Your task to perform on an android device: Open notification settings Image 0: 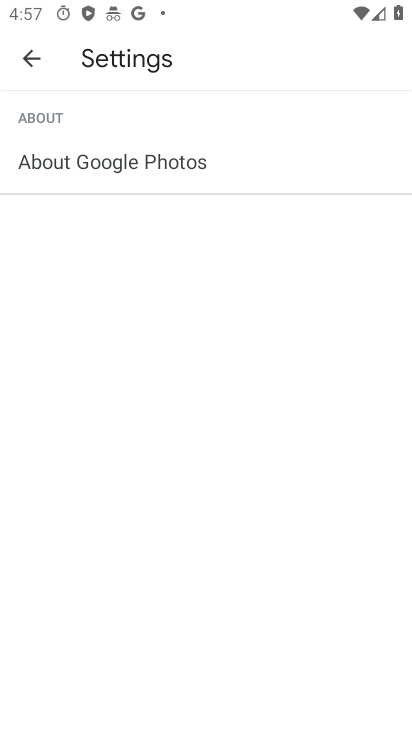
Step 0: press home button
Your task to perform on an android device: Open notification settings Image 1: 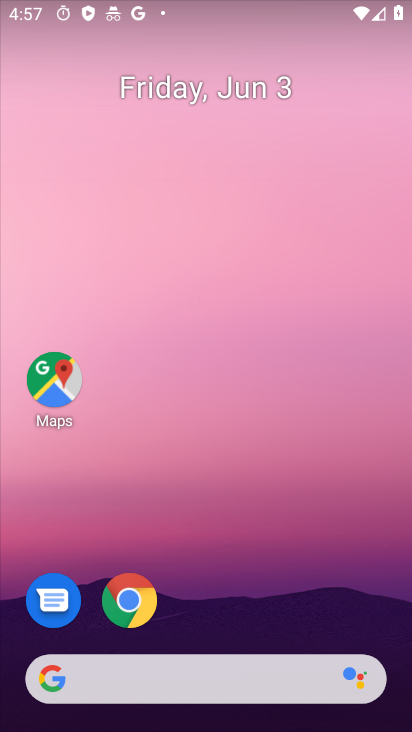
Step 1: drag from (386, 687) to (317, 89)
Your task to perform on an android device: Open notification settings Image 2: 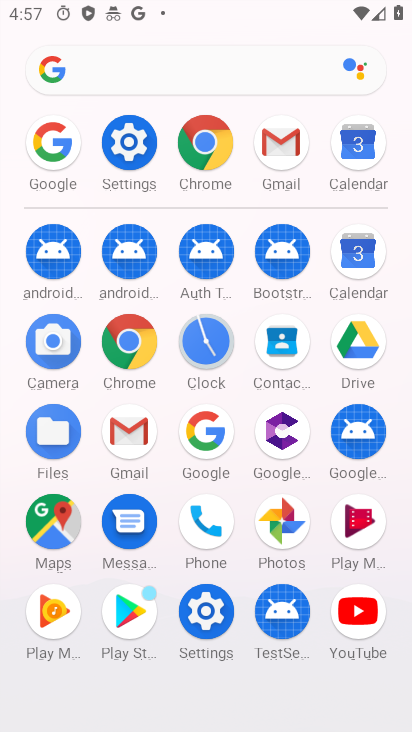
Step 2: click (136, 140)
Your task to perform on an android device: Open notification settings Image 3: 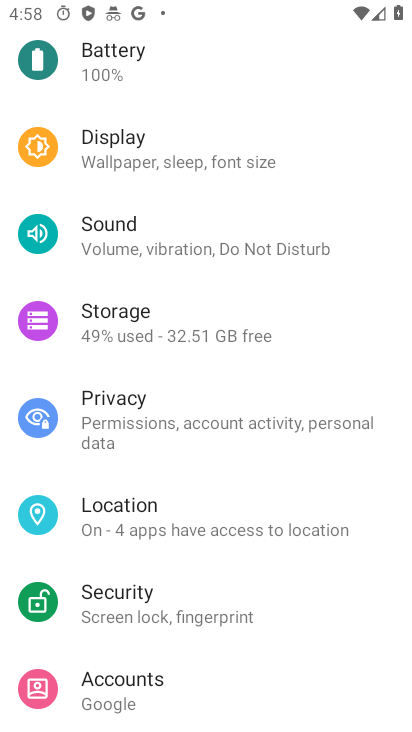
Step 3: drag from (274, 111) to (258, 568)
Your task to perform on an android device: Open notification settings Image 4: 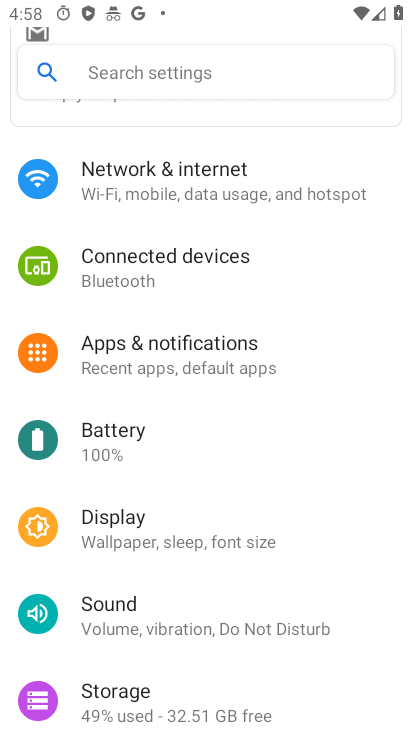
Step 4: drag from (299, 296) to (311, 647)
Your task to perform on an android device: Open notification settings Image 5: 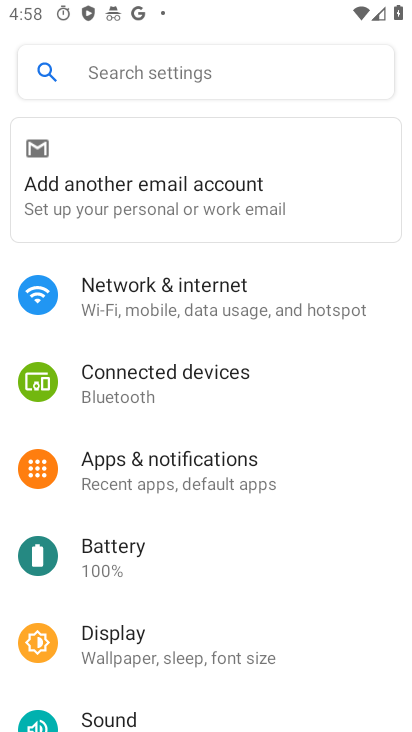
Step 5: drag from (297, 639) to (290, 286)
Your task to perform on an android device: Open notification settings Image 6: 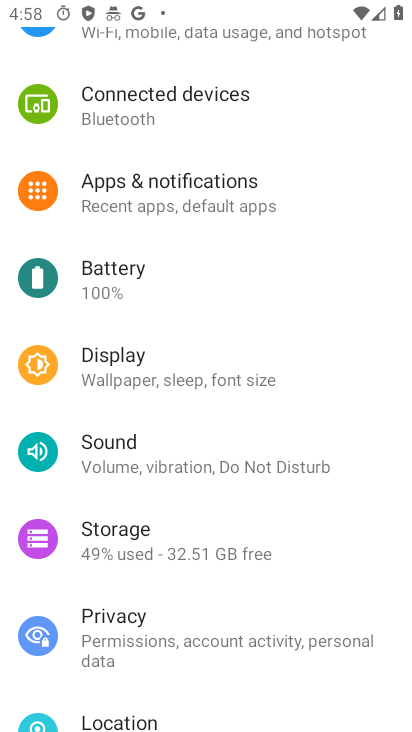
Step 6: drag from (276, 655) to (227, 230)
Your task to perform on an android device: Open notification settings Image 7: 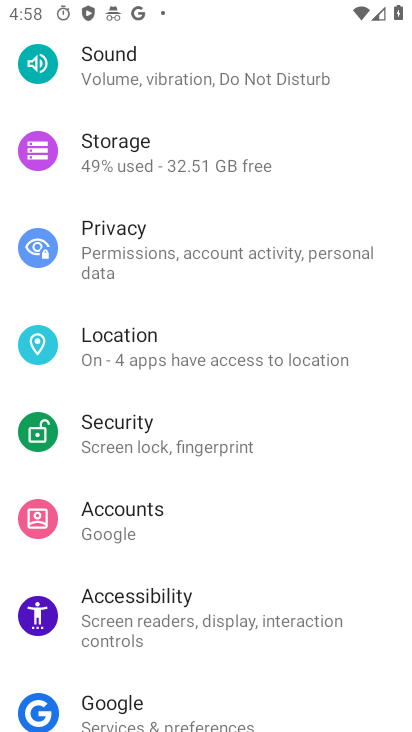
Step 7: drag from (240, 602) to (206, 285)
Your task to perform on an android device: Open notification settings Image 8: 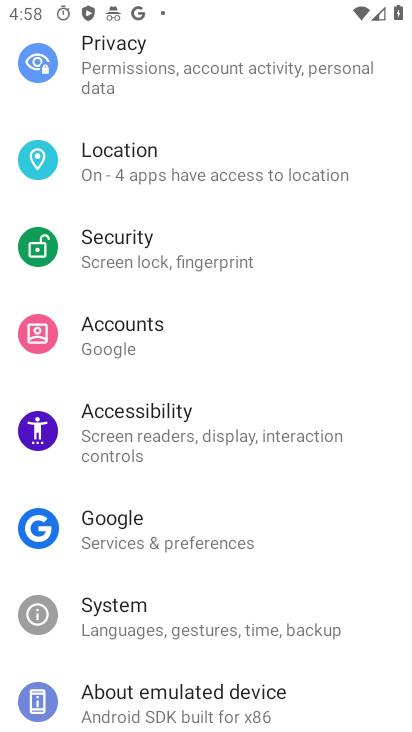
Step 8: drag from (260, 85) to (278, 612)
Your task to perform on an android device: Open notification settings Image 9: 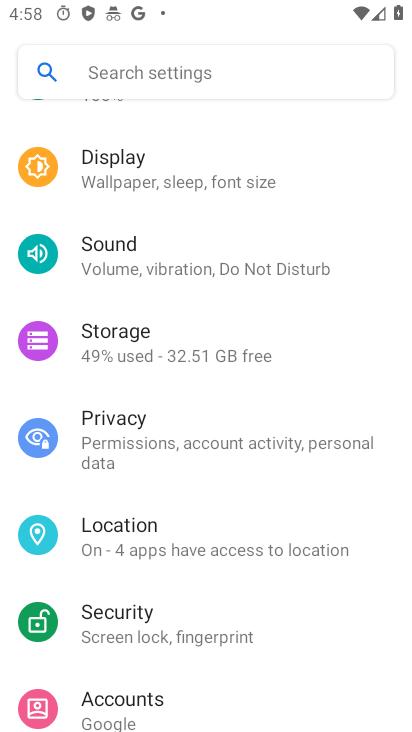
Step 9: drag from (242, 245) to (285, 670)
Your task to perform on an android device: Open notification settings Image 10: 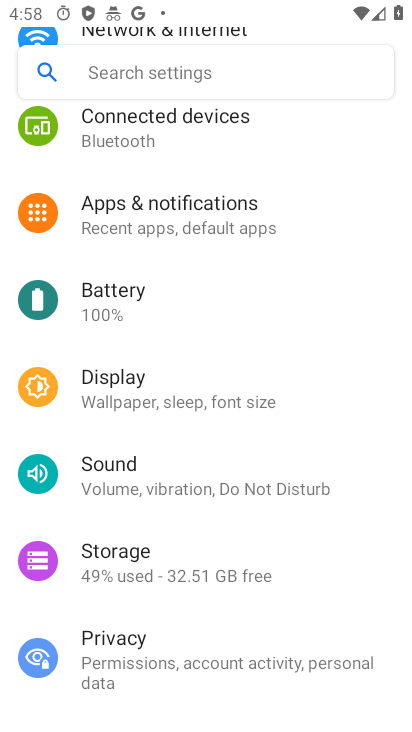
Step 10: click (208, 221)
Your task to perform on an android device: Open notification settings Image 11: 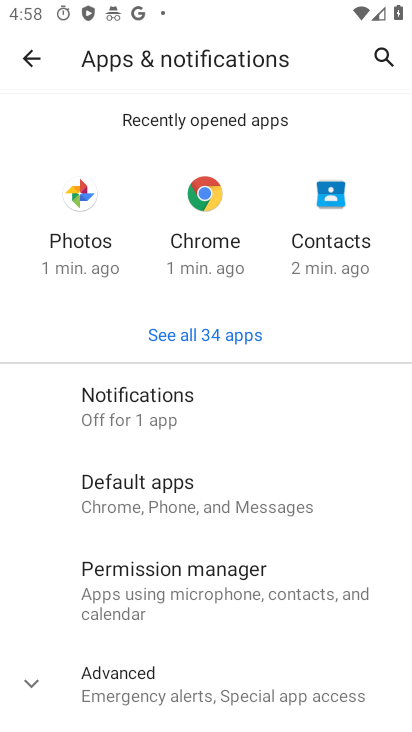
Step 11: click (127, 390)
Your task to perform on an android device: Open notification settings Image 12: 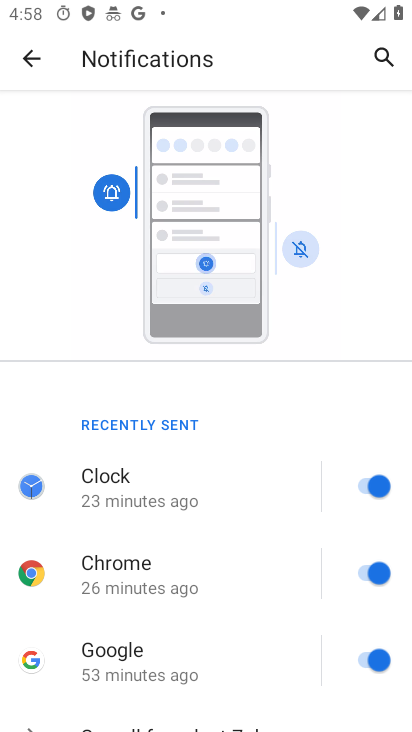
Step 12: drag from (214, 598) to (172, 227)
Your task to perform on an android device: Open notification settings Image 13: 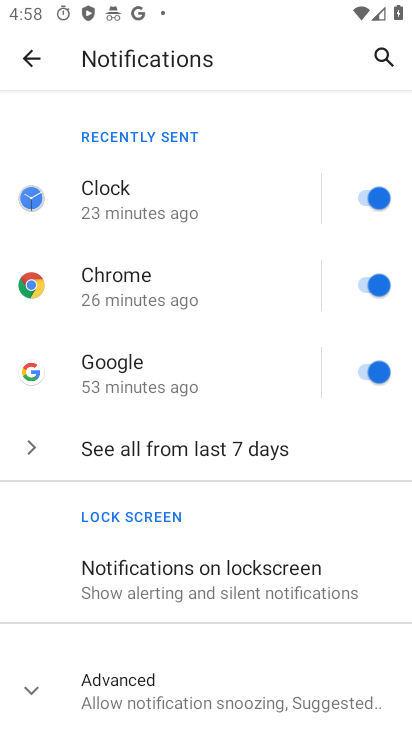
Step 13: click (224, 563)
Your task to perform on an android device: Open notification settings Image 14: 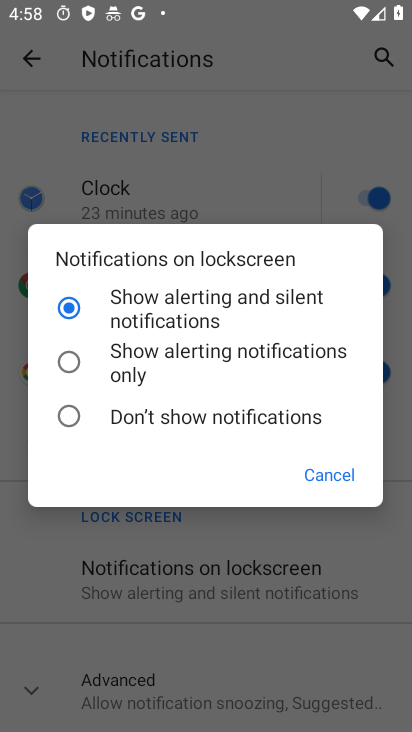
Step 14: click (332, 477)
Your task to perform on an android device: Open notification settings Image 15: 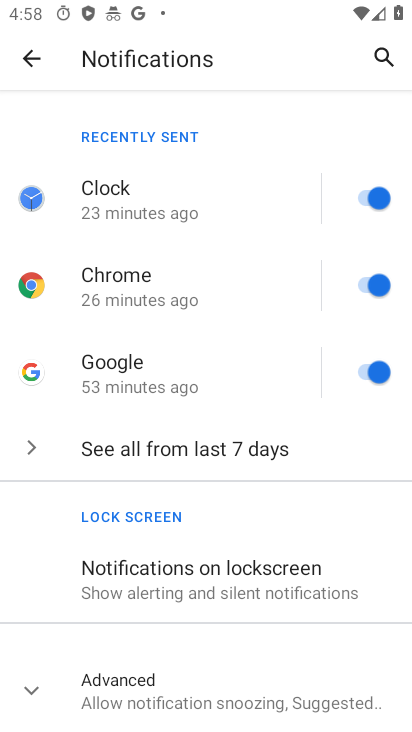
Step 15: click (27, 695)
Your task to perform on an android device: Open notification settings Image 16: 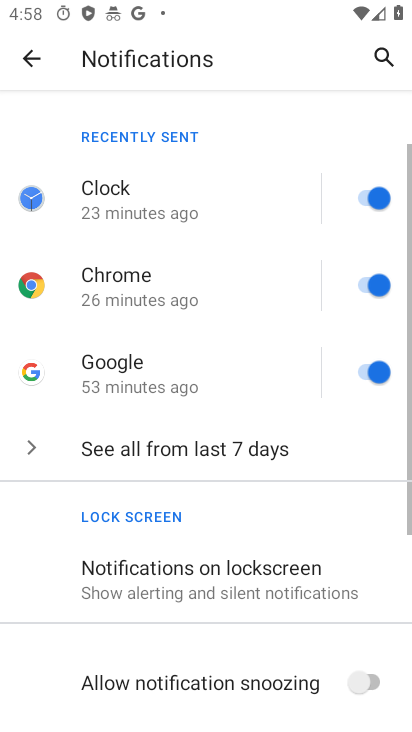
Step 16: task complete